Your task to perform on an android device: allow cookies in the chrome app Image 0: 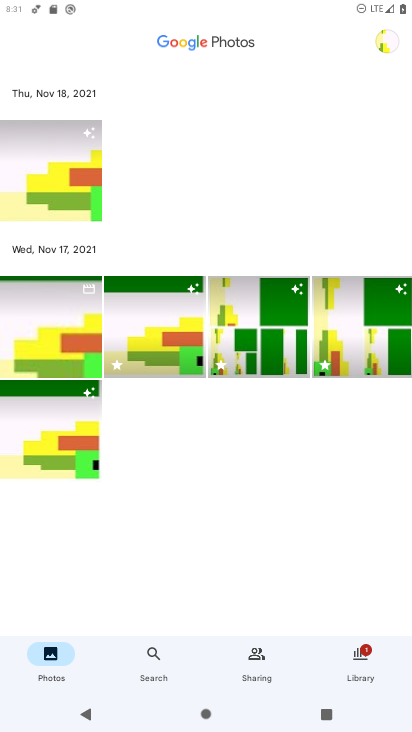
Step 0: press home button
Your task to perform on an android device: allow cookies in the chrome app Image 1: 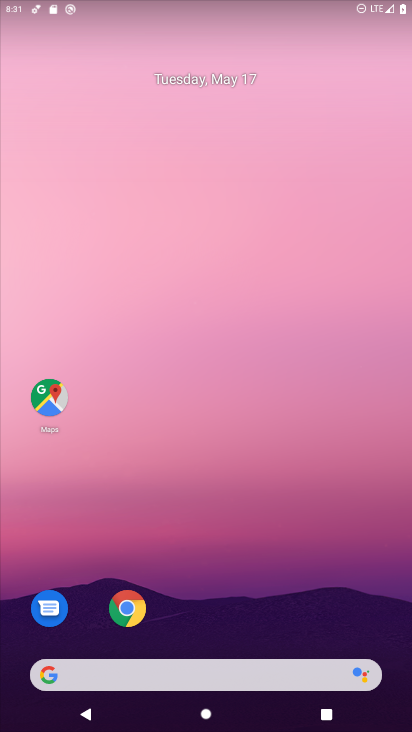
Step 1: drag from (234, 575) to (314, 1)
Your task to perform on an android device: allow cookies in the chrome app Image 2: 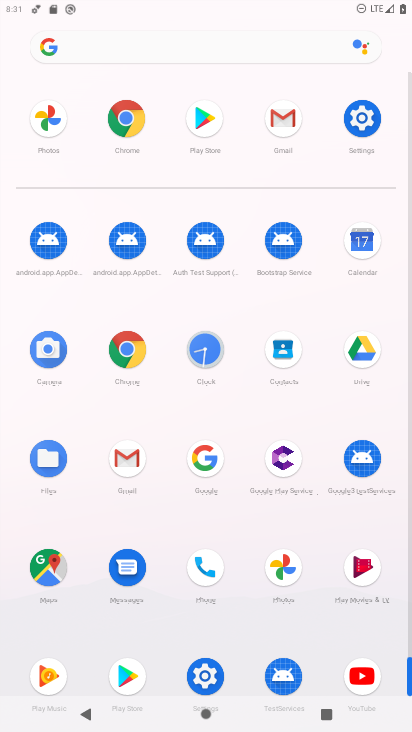
Step 2: click (141, 355)
Your task to perform on an android device: allow cookies in the chrome app Image 3: 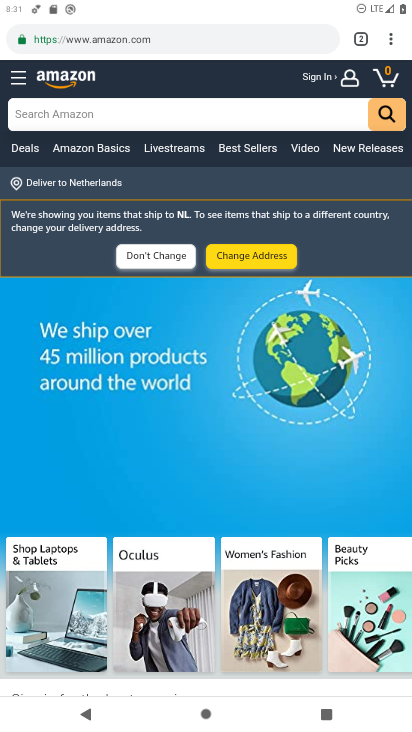
Step 3: click (386, 39)
Your task to perform on an android device: allow cookies in the chrome app Image 4: 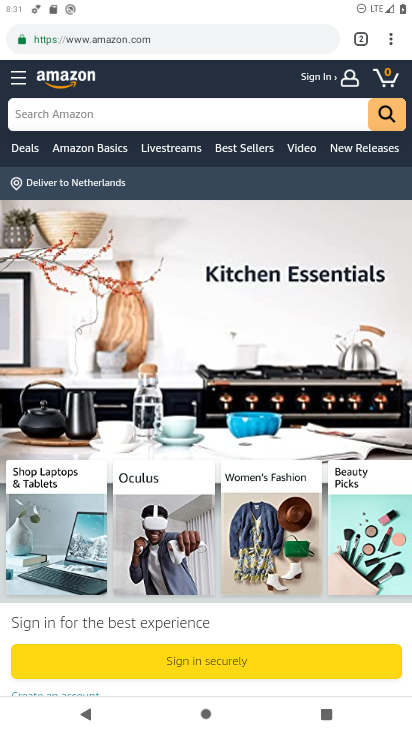
Step 4: click (392, 42)
Your task to perform on an android device: allow cookies in the chrome app Image 5: 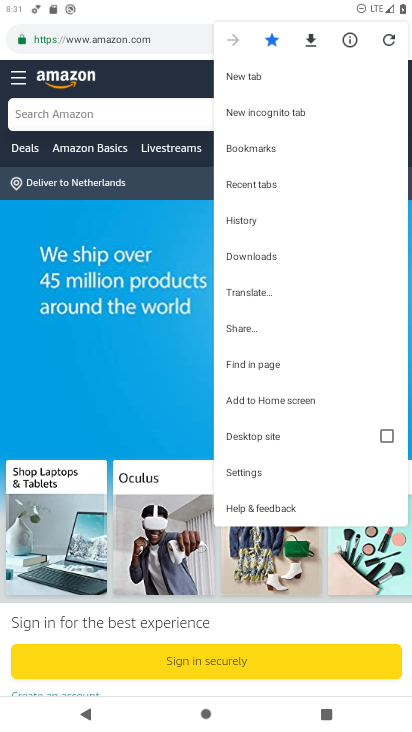
Step 5: click (249, 470)
Your task to perform on an android device: allow cookies in the chrome app Image 6: 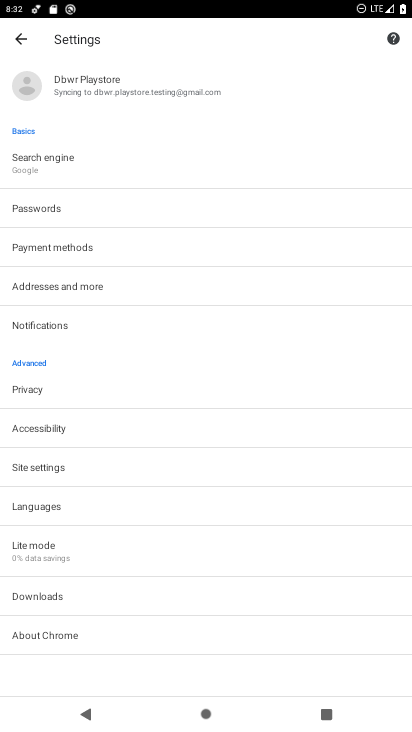
Step 6: click (53, 471)
Your task to perform on an android device: allow cookies in the chrome app Image 7: 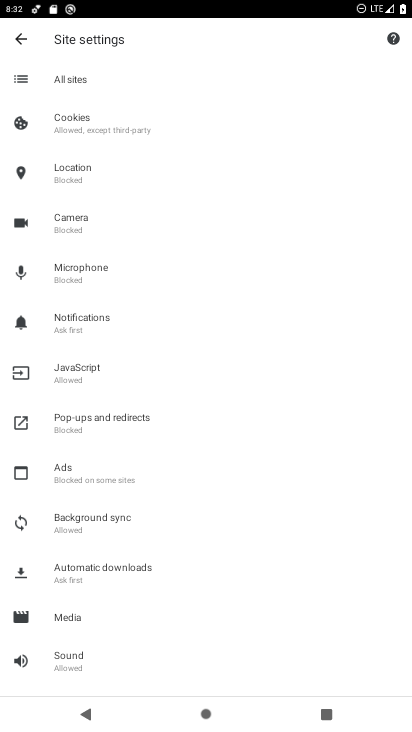
Step 7: click (99, 134)
Your task to perform on an android device: allow cookies in the chrome app Image 8: 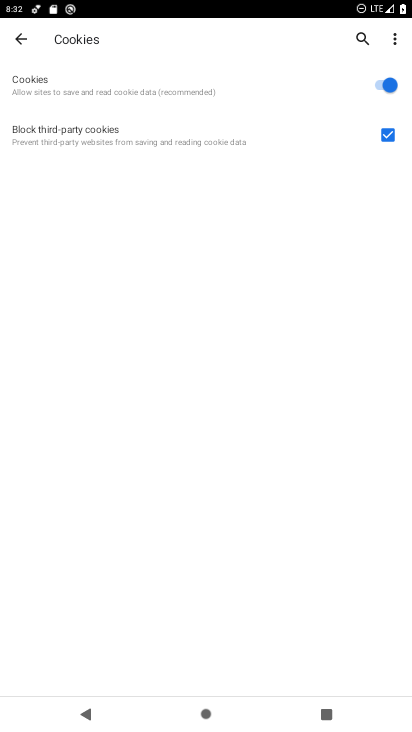
Step 8: task complete